Your task to perform on an android device: What's on my calendar today? Image 0: 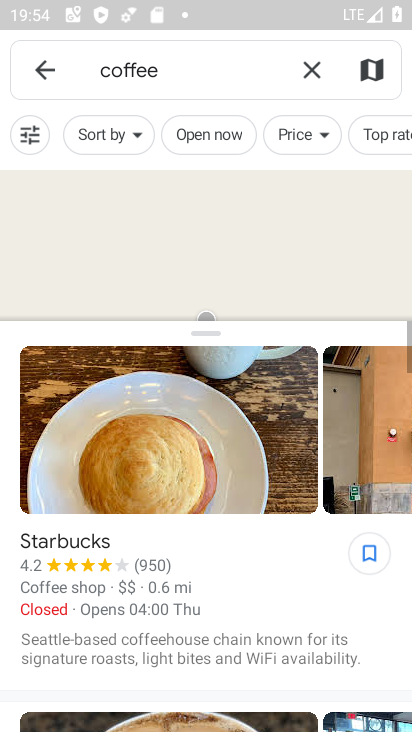
Step 0: press home button
Your task to perform on an android device: What's on my calendar today? Image 1: 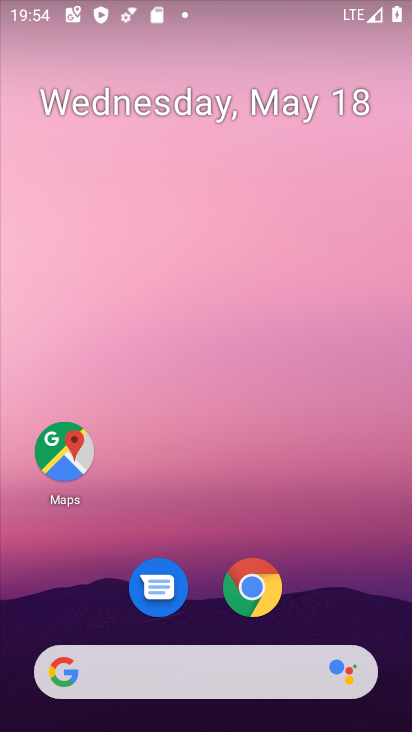
Step 1: click (131, 88)
Your task to perform on an android device: What's on my calendar today? Image 2: 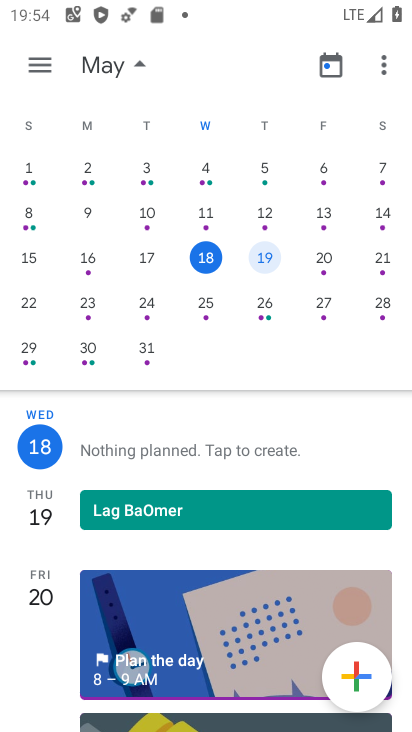
Step 2: task complete